Your task to perform on an android device: Open Chrome and go to the settings page Image 0: 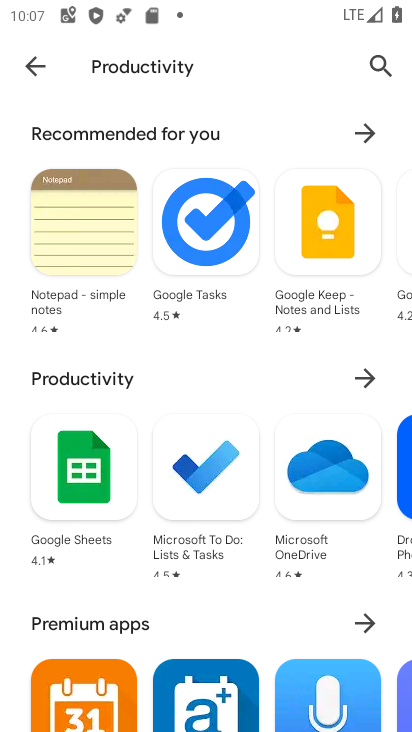
Step 0: press home button
Your task to perform on an android device: Open Chrome and go to the settings page Image 1: 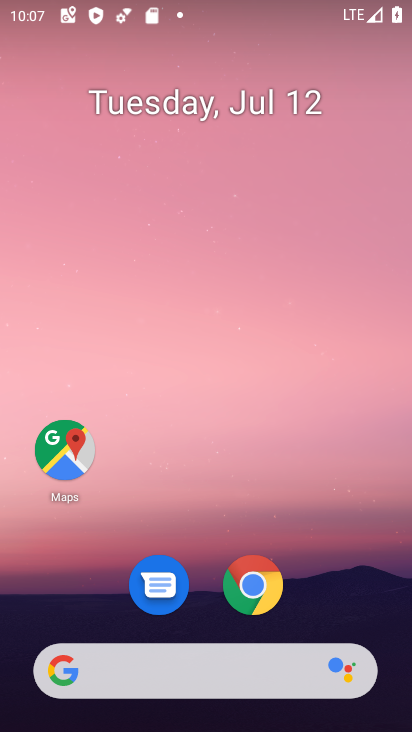
Step 1: click (258, 594)
Your task to perform on an android device: Open Chrome and go to the settings page Image 2: 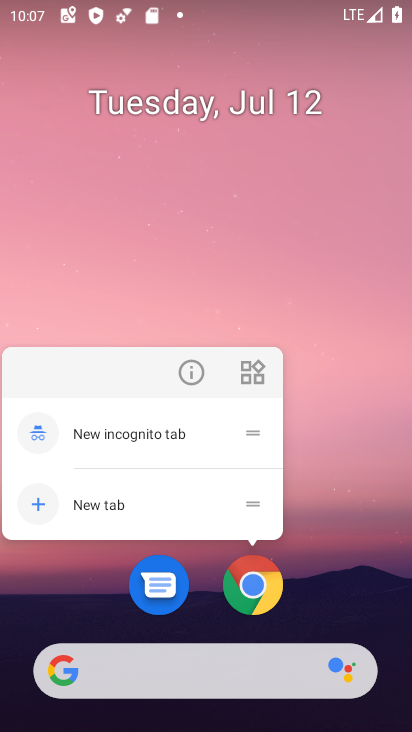
Step 2: click (254, 600)
Your task to perform on an android device: Open Chrome and go to the settings page Image 3: 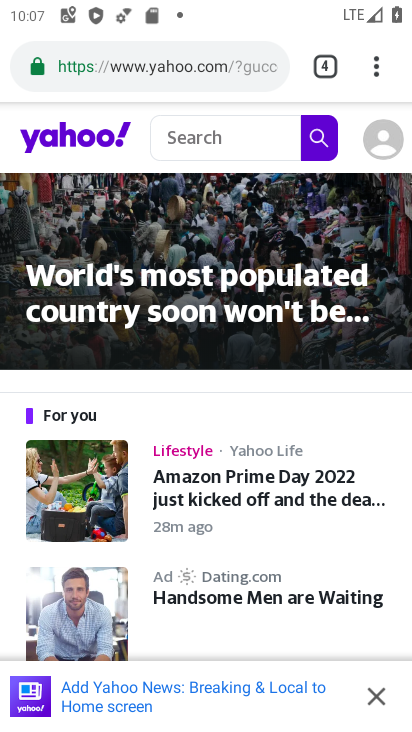
Step 3: task complete